Your task to perform on an android device: turn off priority inbox in the gmail app Image 0: 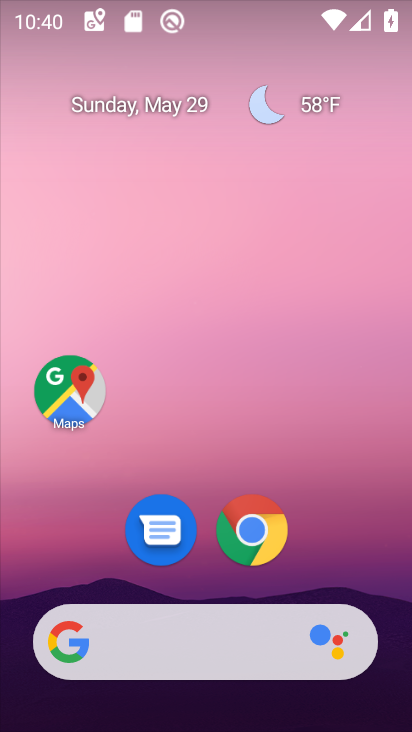
Step 0: drag from (233, 644) to (275, 51)
Your task to perform on an android device: turn off priority inbox in the gmail app Image 1: 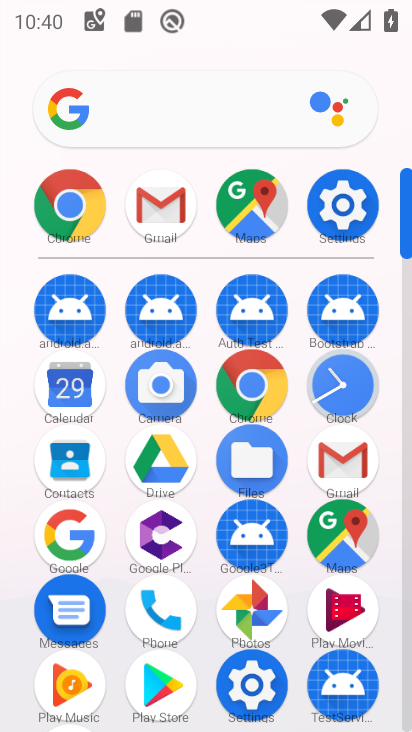
Step 1: click (359, 469)
Your task to perform on an android device: turn off priority inbox in the gmail app Image 2: 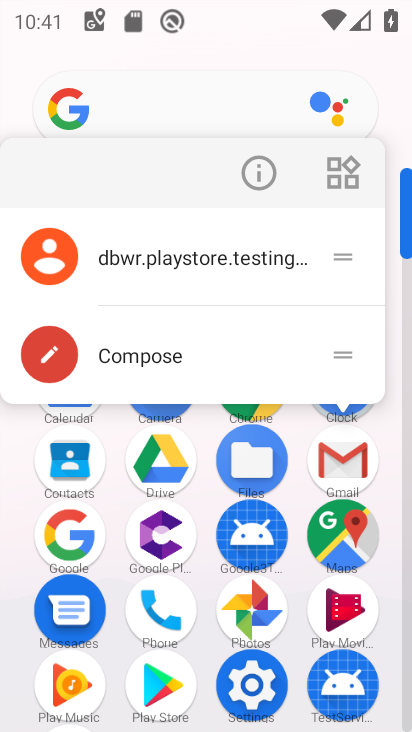
Step 2: click (335, 471)
Your task to perform on an android device: turn off priority inbox in the gmail app Image 3: 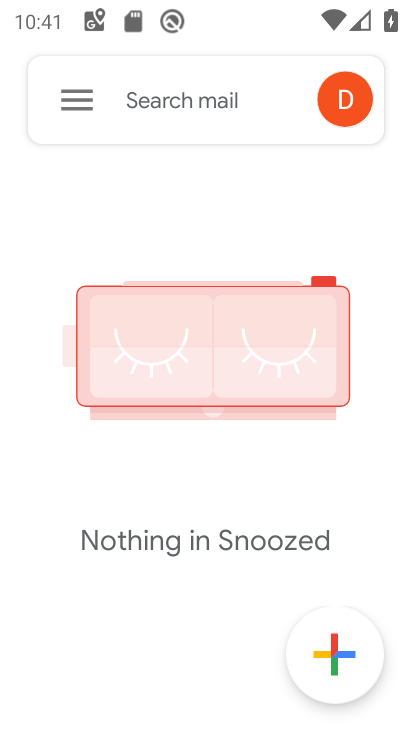
Step 3: click (73, 113)
Your task to perform on an android device: turn off priority inbox in the gmail app Image 4: 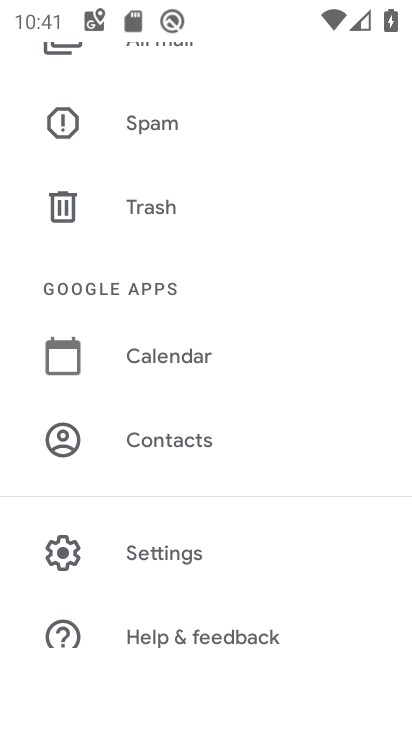
Step 4: click (165, 561)
Your task to perform on an android device: turn off priority inbox in the gmail app Image 5: 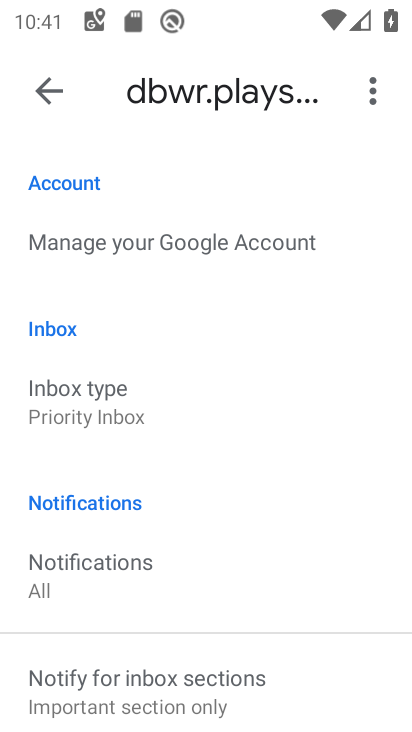
Step 5: click (139, 400)
Your task to perform on an android device: turn off priority inbox in the gmail app Image 6: 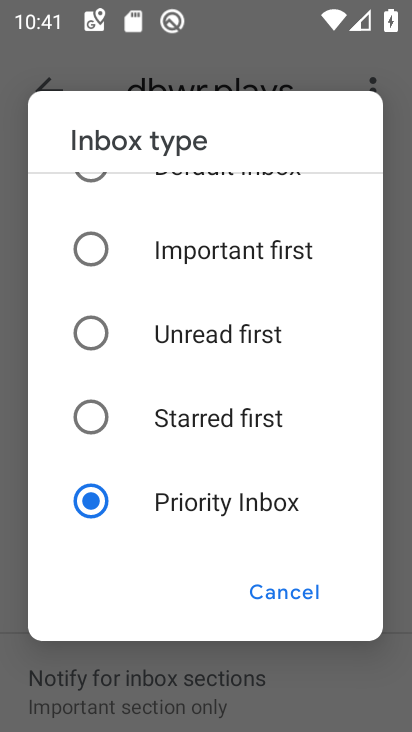
Step 6: click (179, 250)
Your task to perform on an android device: turn off priority inbox in the gmail app Image 7: 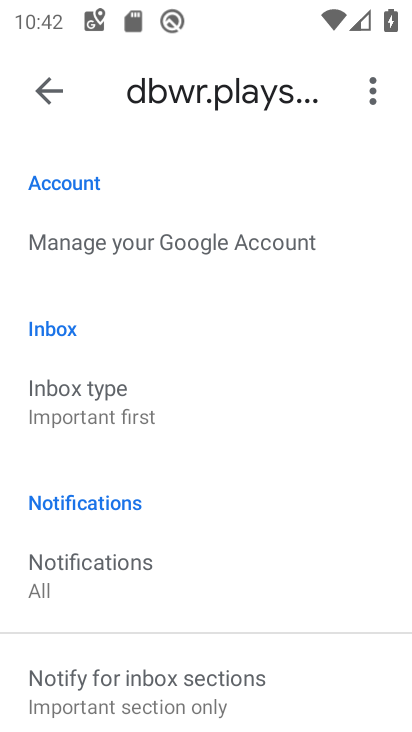
Step 7: task complete